Your task to perform on an android device: open device folders in google photos Image 0: 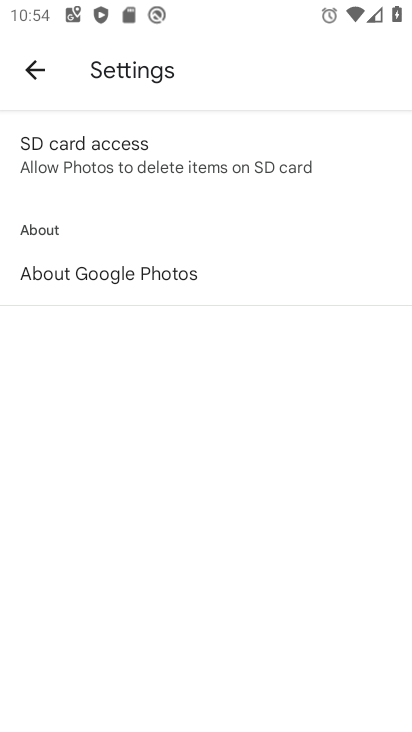
Step 0: press home button
Your task to perform on an android device: open device folders in google photos Image 1: 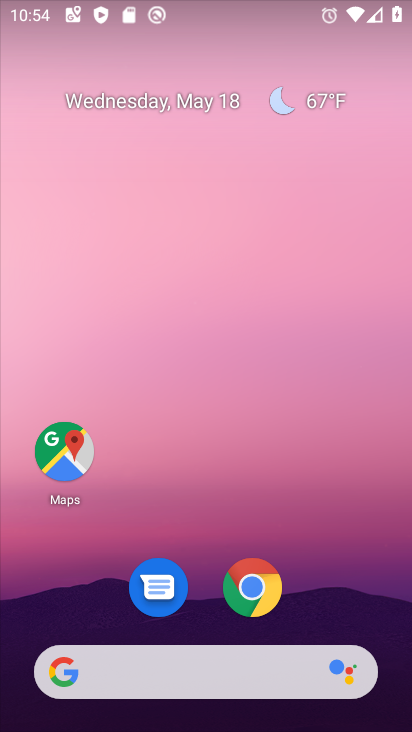
Step 1: drag from (320, 567) to (372, 75)
Your task to perform on an android device: open device folders in google photos Image 2: 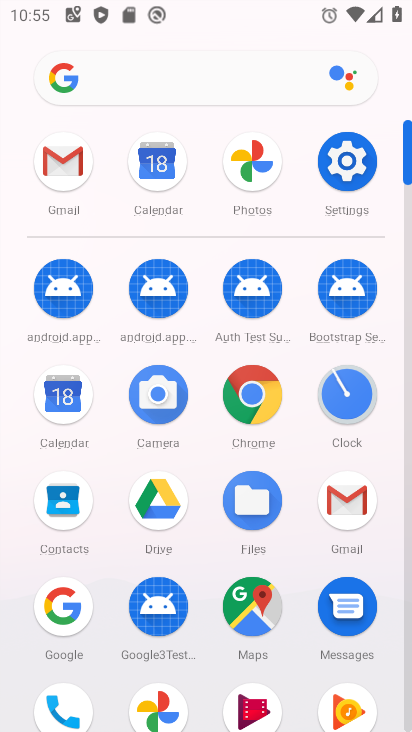
Step 2: click (264, 182)
Your task to perform on an android device: open device folders in google photos Image 3: 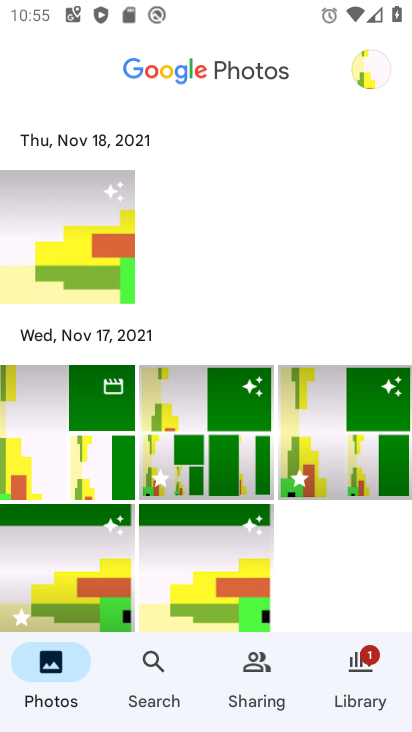
Step 3: drag from (346, 528) to (301, 129)
Your task to perform on an android device: open device folders in google photos Image 4: 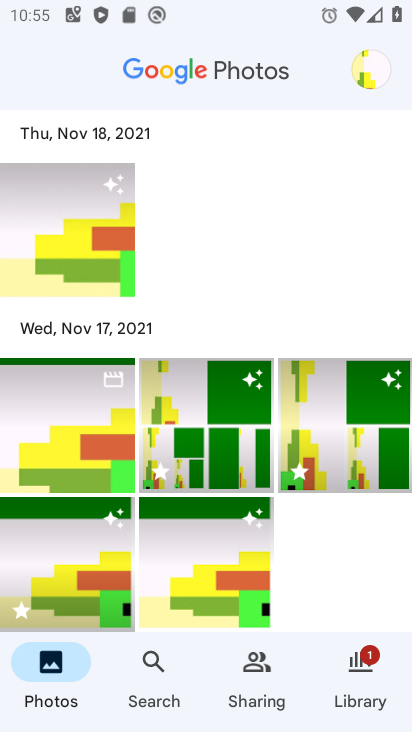
Step 4: click (376, 66)
Your task to perform on an android device: open device folders in google photos Image 5: 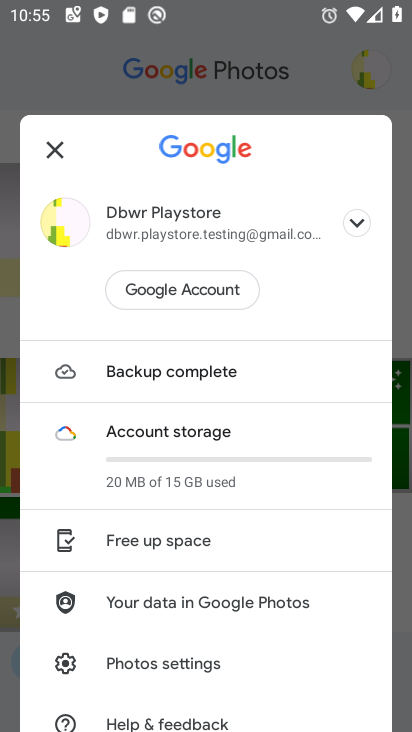
Step 5: drag from (227, 518) to (227, 295)
Your task to perform on an android device: open device folders in google photos Image 6: 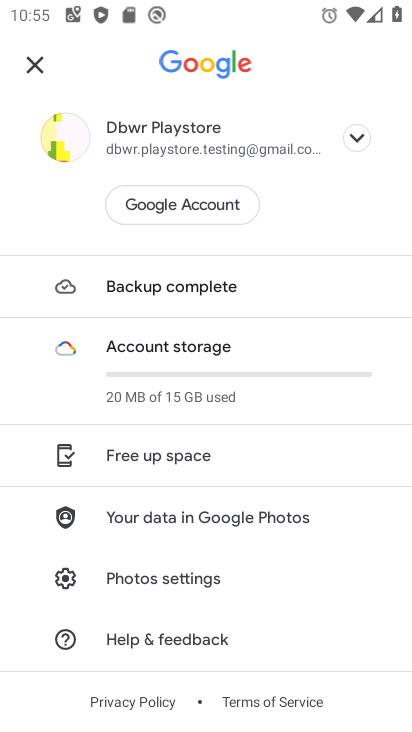
Step 6: click (232, 582)
Your task to perform on an android device: open device folders in google photos Image 7: 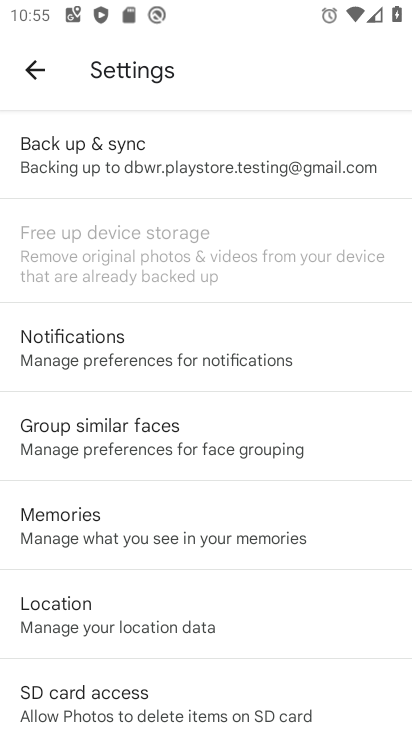
Step 7: task complete